Your task to perform on an android device: toggle priority inbox in the gmail app Image 0: 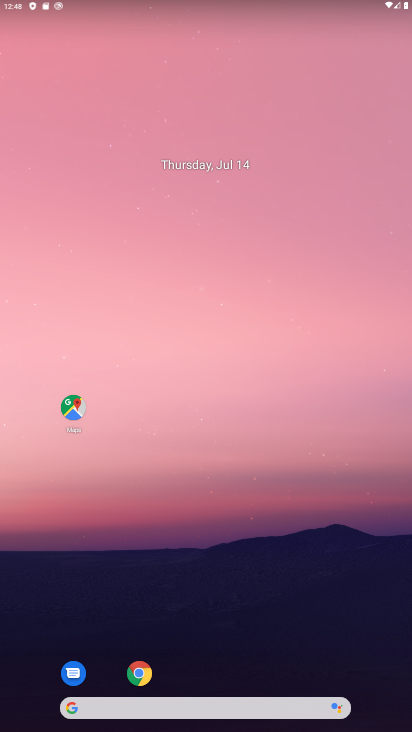
Step 0: drag from (286, 630) to (219, 14)
Your task to perform on an android device: toggle priority inbox in the gmail app Image 1: 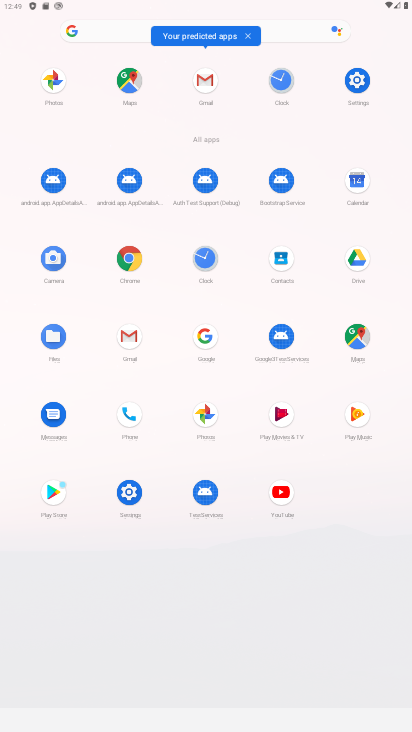
Step 1: click (200, 84)
Your task to perform on an android device: toggle priority inbox in the gmail app Image 2: 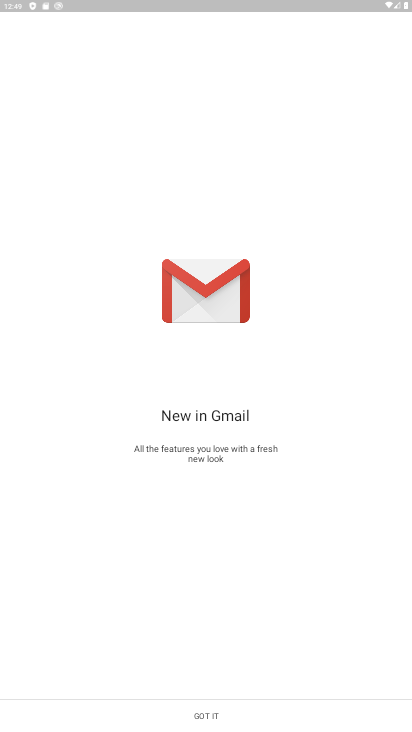
Step 2: click (218, 713)
Your task to perform on an android device: toggle priority inbox in the gmail app Image 3: 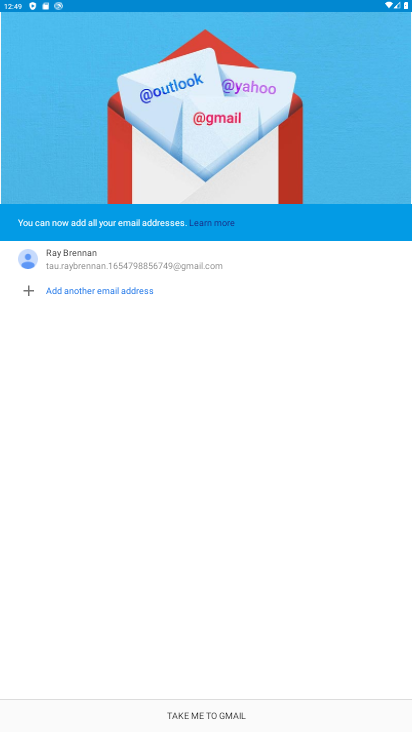
Step 3: click (218, 714)
Your task to perform on an android device: toggle priority inbox in the gmail app Image 4: 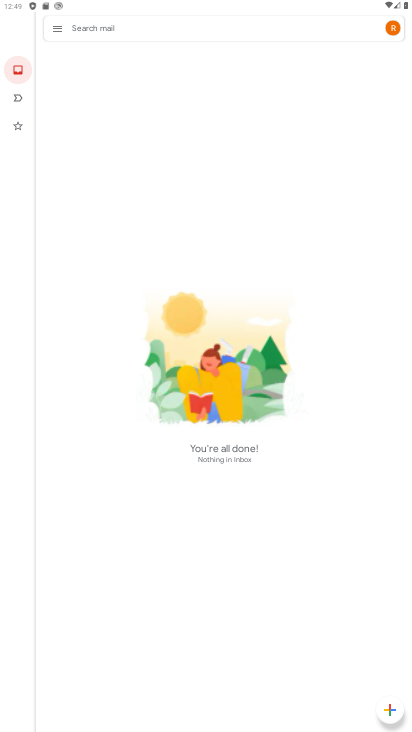
Step 4: click (59, 26)
Your task to perform on an android device: toggle priority inbox in the gmail app Image 5: 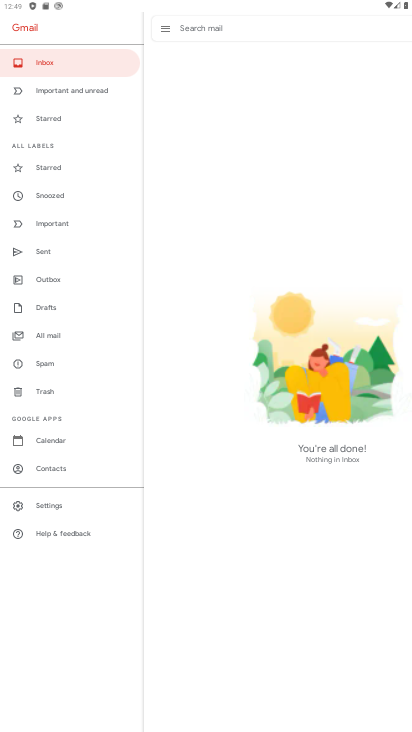
Step 5: click (75, 506)
Your task to perform on an android device: toggle priority inbox in the gmail app Image 6: 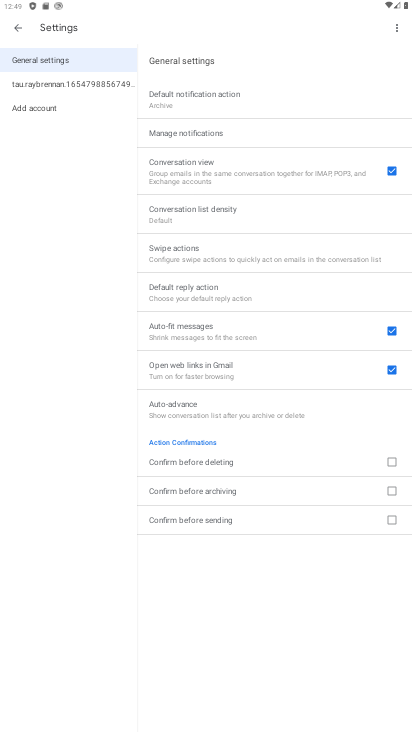
Step 6: click (105, 82)
Your task to perform on an android device: toggle priority inbox in the gmail app Image 7: 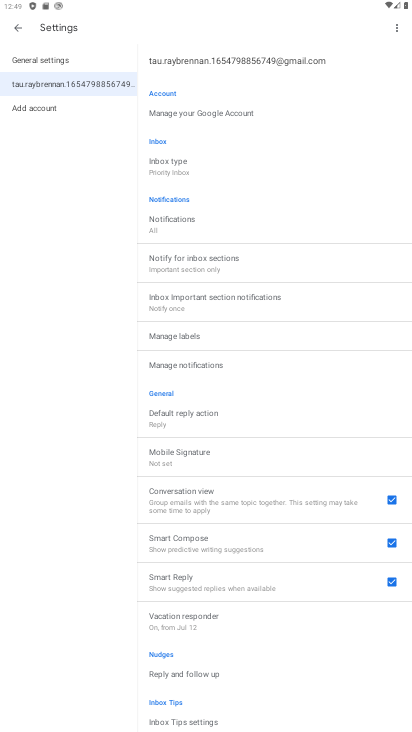
Step 7: click (177, 174)
Your task to perform on an android device: toggle priority inbox in the gmail app Image 8: 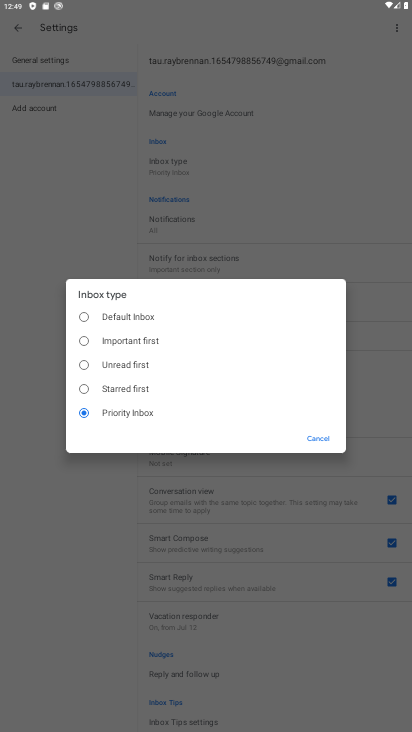
Step 8: click (132, 321)
Your task to perform on an android device: toggle priority inbox in the gmail app Image 9: 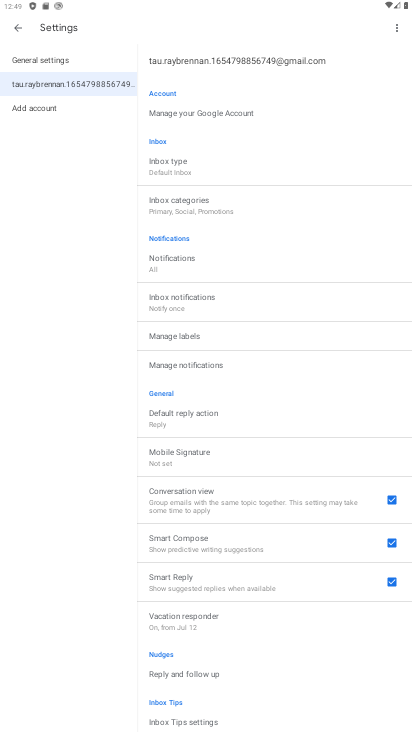
Step 9: task complete